Your task to perform on an android device: Open Youtube and go to "Your channel" Image 0: 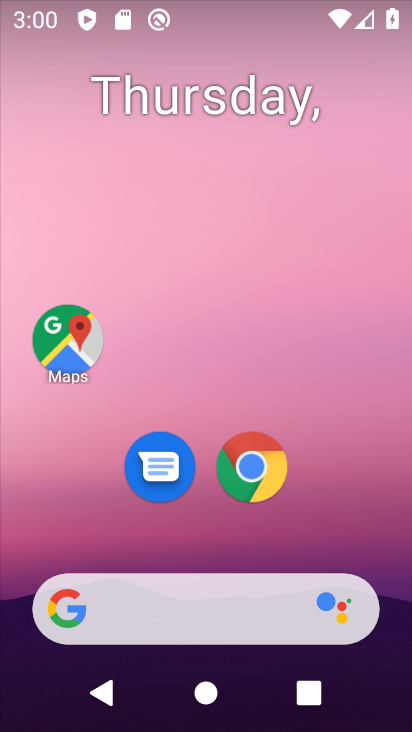
Step 0: drag from (230, 493) to (227, 109)
Your task to perform on an android device: Open Youtube and go to "Your channel" Image 1: 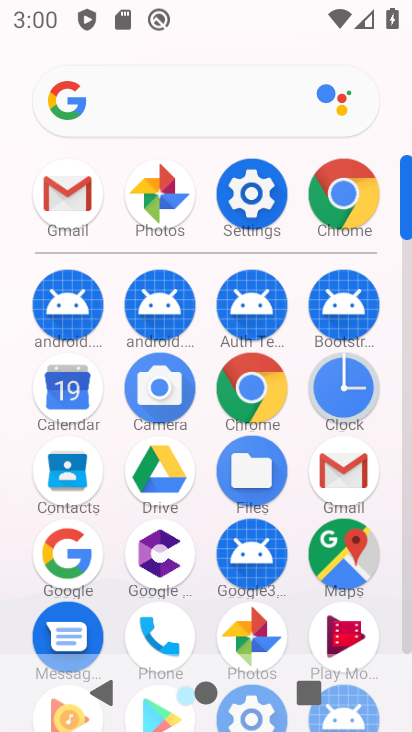
Step 1: drag from (280, 607) to (221, 87)
Your task to perform on an android device: Open Youtube and go to "Your channel" Image 2: 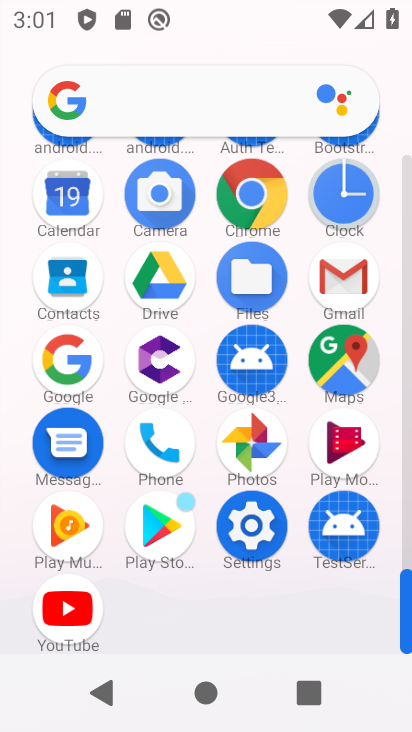
Step 2: click (84, 630)
Your task to perform on an android device: Open Youtube and go to "Your channel" Image 3: 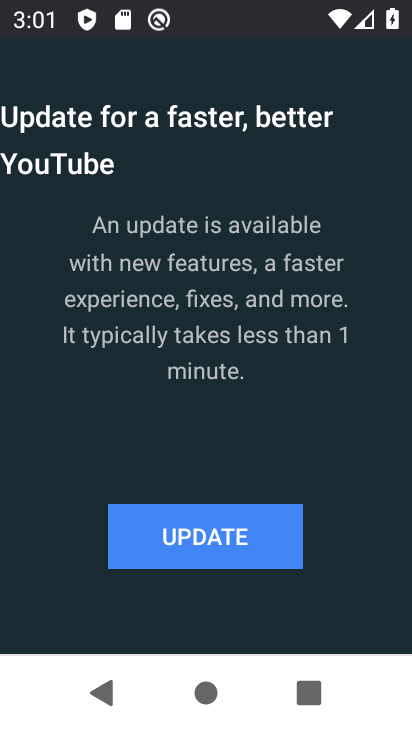
Step 3: click (170, 559)
Your task to perform on an android device: Open Youtube and go to "Your channel" Image 4: 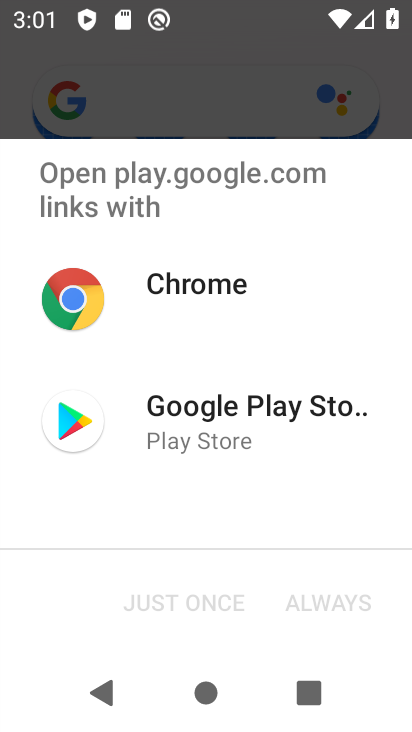
Step 4: click (181, 461)
Your task to perform on an android device: Open Youtube and go to "Your channel" Image 5: 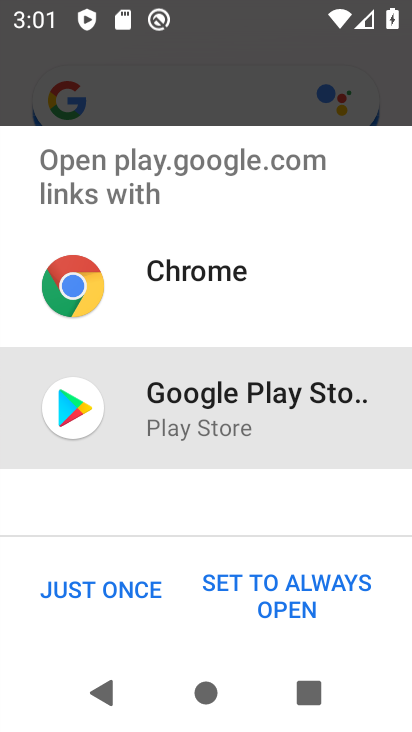
Step 5: click (122, 595)
Your task to perform on an android device: Open Youtube and go to "Your channel" Image 6: 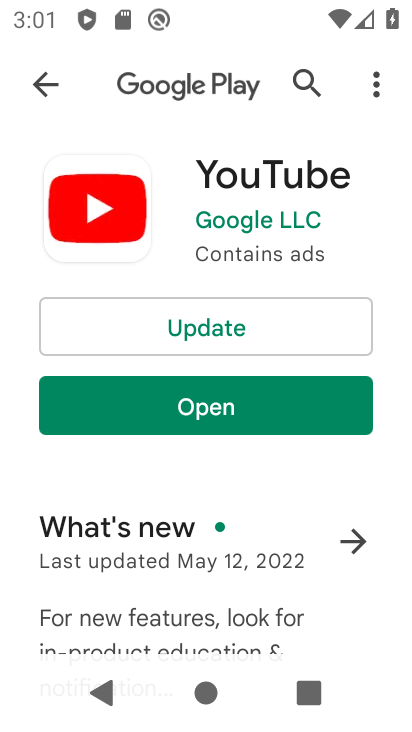
Step 6: click (183, 336)
Your task to perform on an android device: Open Youtube and go to "Your channel" Image 7: 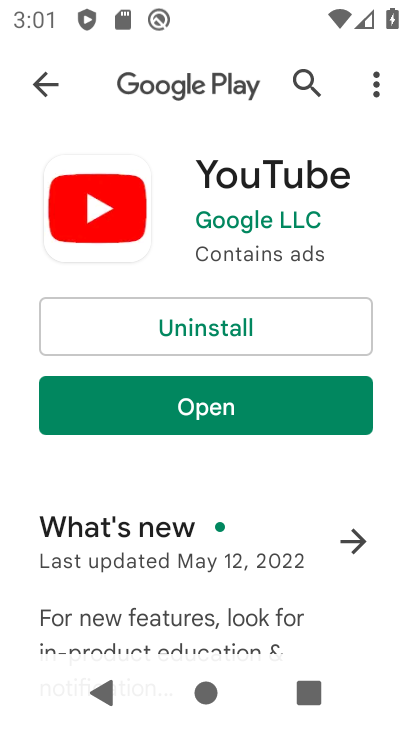
Step 7: click (259, 410)
Your task to perform on an android device: Open Youtube and go to "Your channel" Image 8: 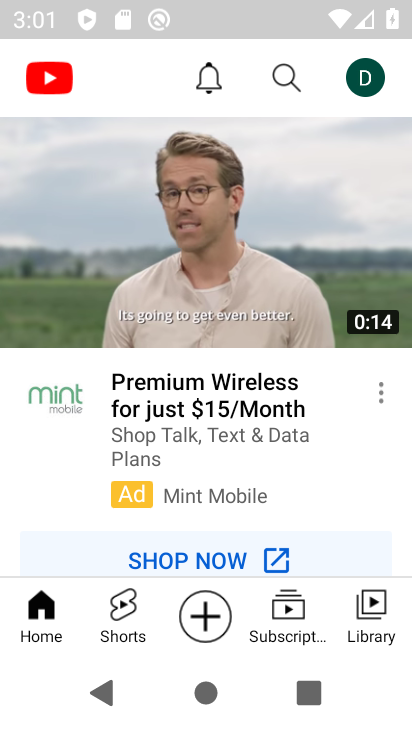
Step 8: click (368, 84)
Your task to perform on an android device: Open Youtube and go to "Your channel" Image 9: 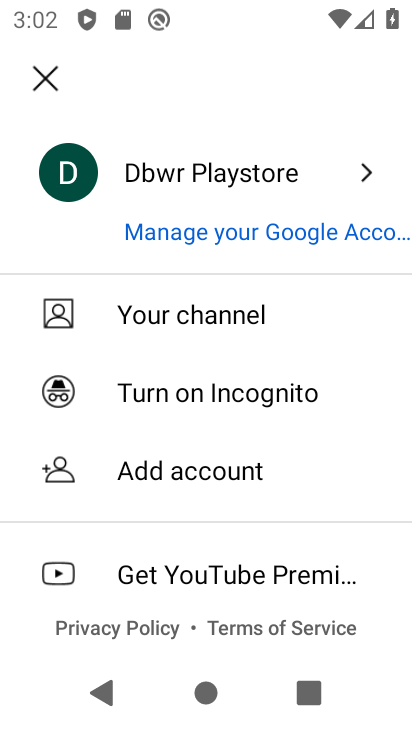
Step 9: click (215, 331)
Your task to perform on an android device: Open Youtube and go to "Your channel" Image 10: 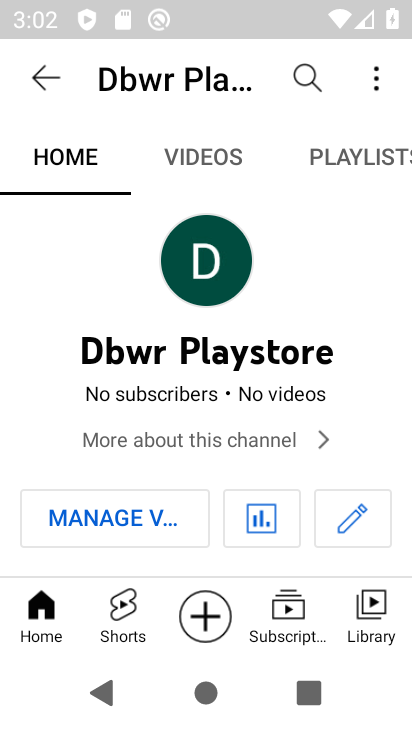
Step 10: task complete